Your task to perform on an android device: turn off location Image 0: 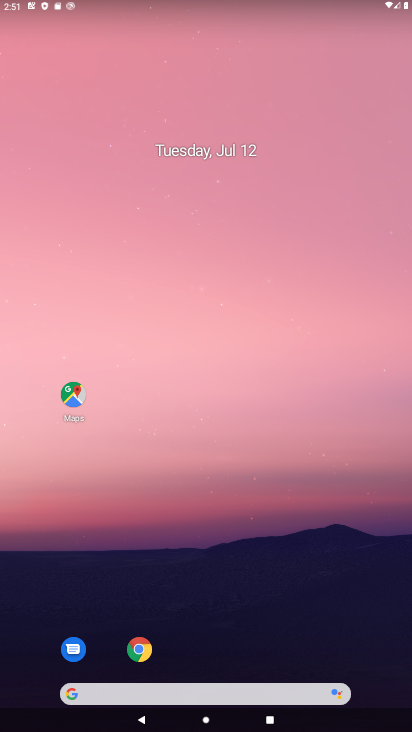
Step 0: drag from (239, 652) to (215, 300)
Your task to perform on an android device: turn off location Image 1: 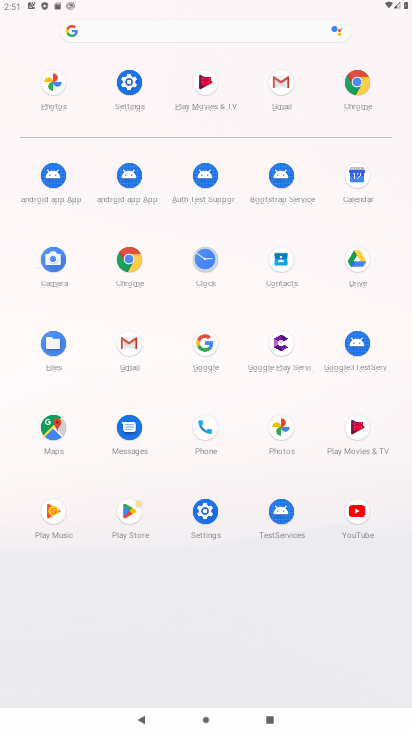
Step 1: click (125, 79)
Your task to perform on an android device: turn off location Image 2: 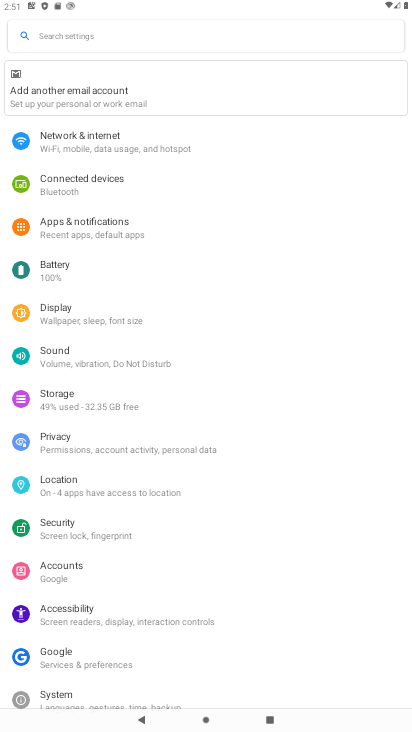
Step 2: click (114, 485)
Your task to perform on an android device: turn off location Image 3: 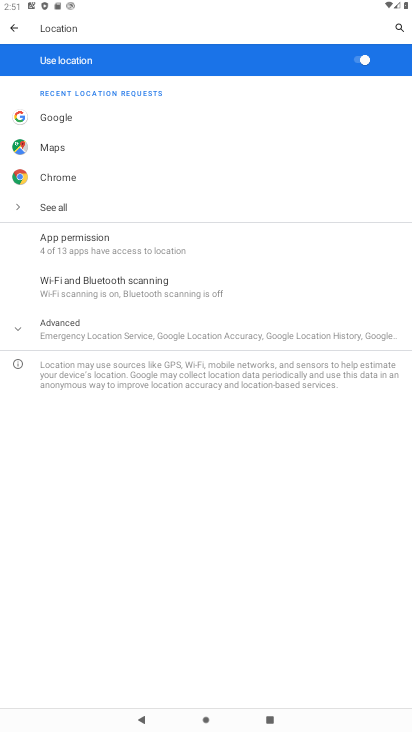
Step 3: click (75, 320)
Your task to perform on an android device: turn off location Image 4: 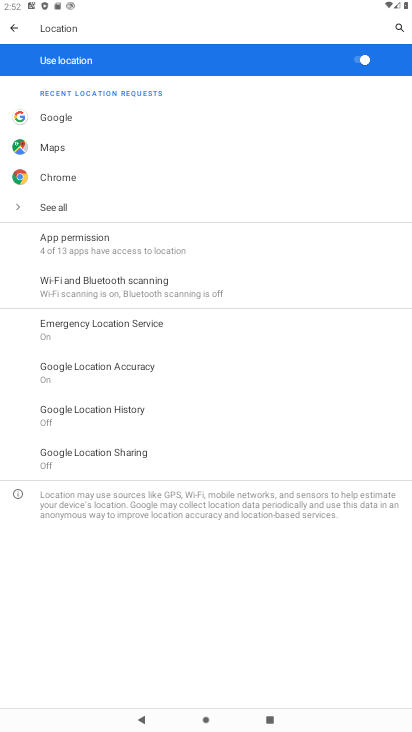
Step 4: click (341, 64)
Your task to perform on an android device: turn off location Image 5: 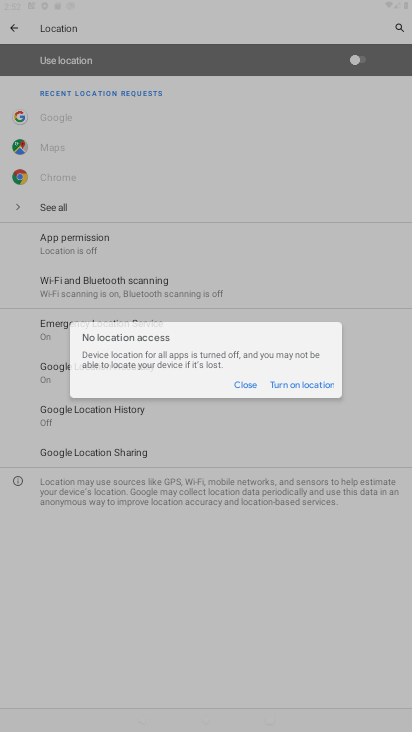
Step 5: task complete